Your task to perform on an android device: open app "Nova Launcher" (install if not already installed) Image 0: 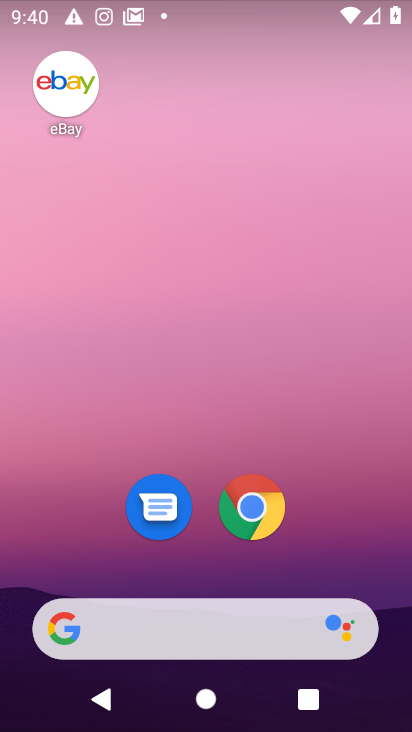
Step 0: drag from (165, 558) to (254, 118)
Your task to perform on an android device: open app "Nova Launcher" (install if not already installed) Image 1: 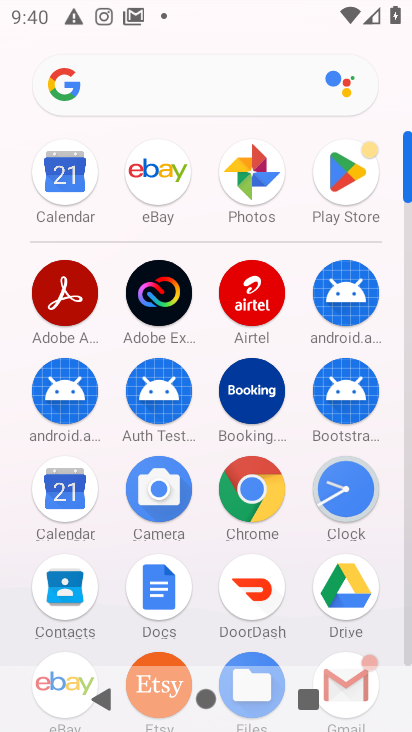
Step 1: click (353, 187)
Your task to perform on an android device: open app "Nova Launcher" (install if not already installed) Image 2: 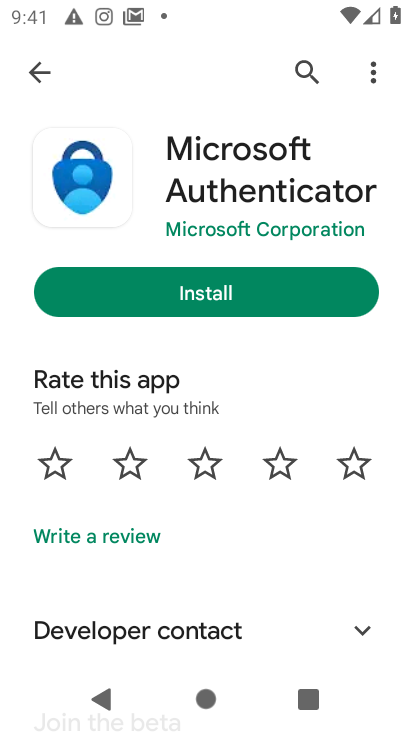
Step 2: click (41, 74)
Your task to perform on an android device: open app "Nova Launcher" (install if not already installed) Image 3: 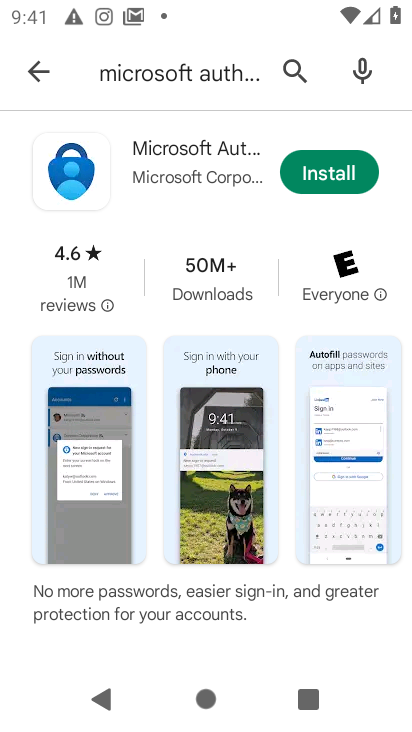
Step 3: click (41, 74)
Your task to perform on an android device: open app "Nova Launcher" (install if not already installed) Image 4: 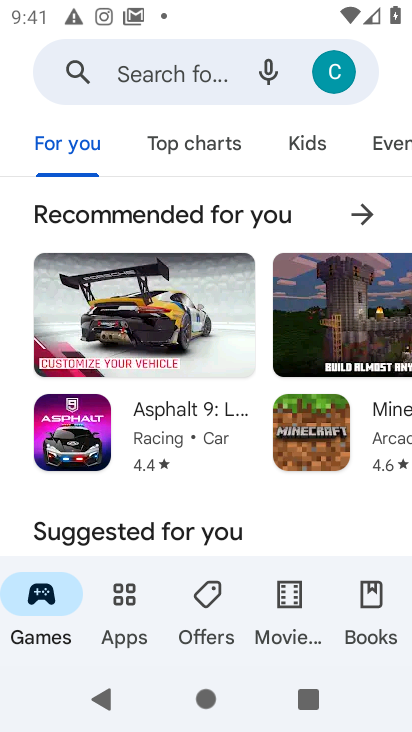
Step 4: click (172, 61)
Your task to perform on an android device: open app "Nova Launcher" (install if not already installed) Image 5: 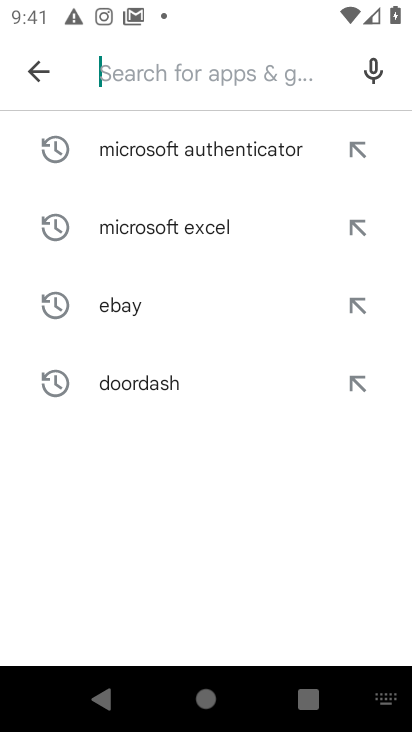
Step 5: type "Nova Launcher"
Your task to perform on an android device: open app "Nova Launcher" (install if not already installed) Image 6: 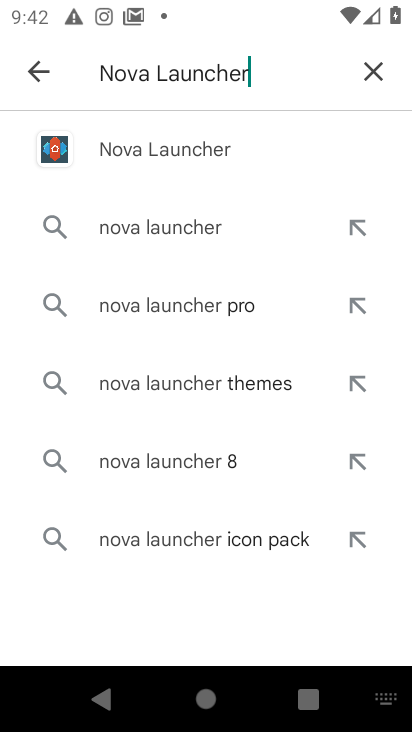
Step 6: click (196, 140)
Your task to perform on an android device: open app "Nova Launcher" (install if not already installed) Image 7: 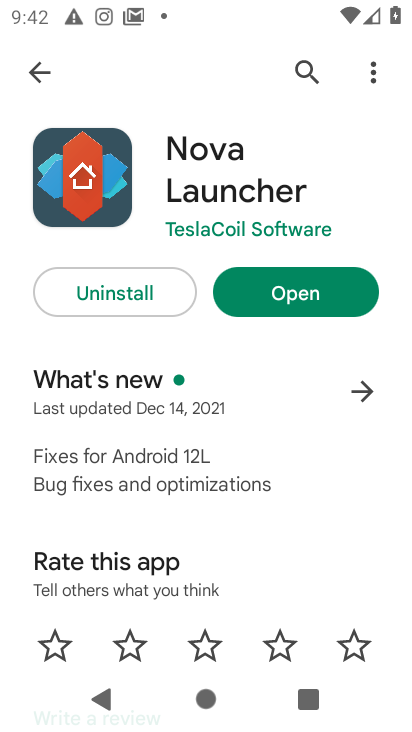
Step 7: click (265, 281)
Your task to perform on an android device: open app "Nova Launcher" (install if not already installed) Image 8: 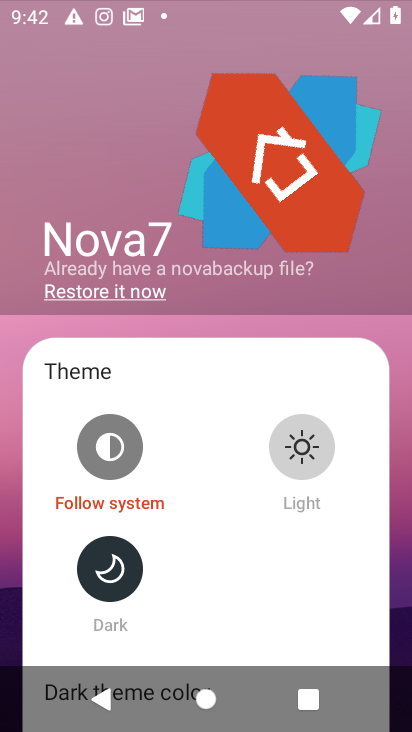
Step 8: task complete